Your task to perform on an android device: Open the map Image 0: 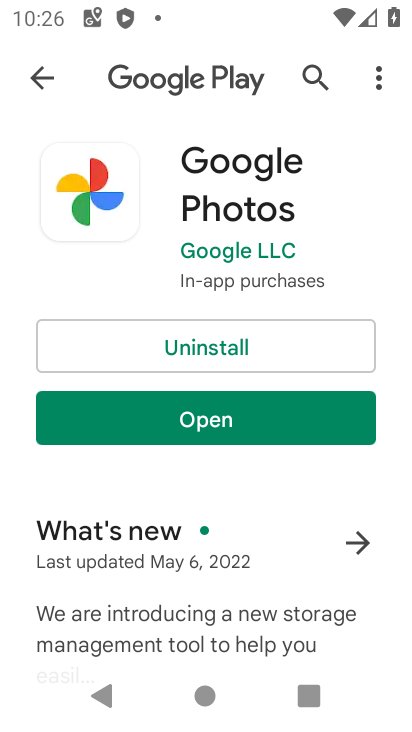
Step 0: press home button
Your task to perform on an android device: Open the map Image 1: 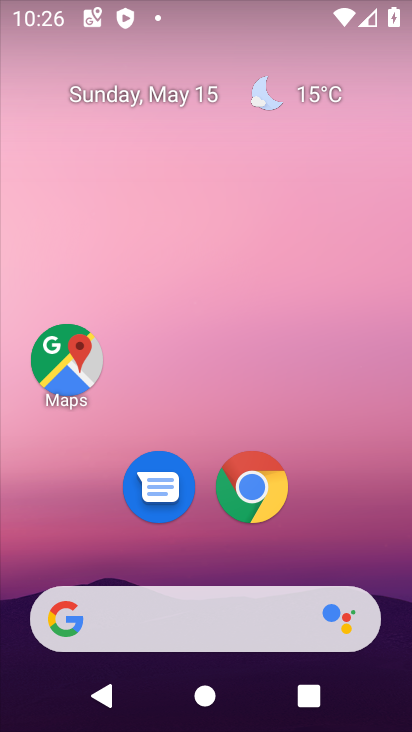
Step 1: click (65, 357)
Your task to perform on an android device: Open the map Image 2: 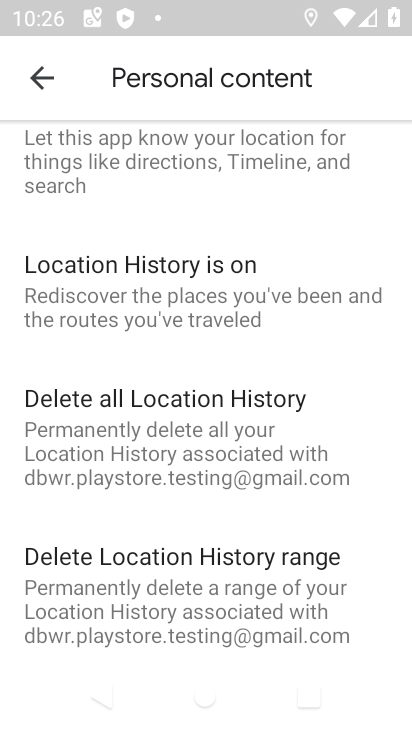
Step 2: task complete